Your task to perform on an android device: open chrome and create a bookmark for the current page Image 0: 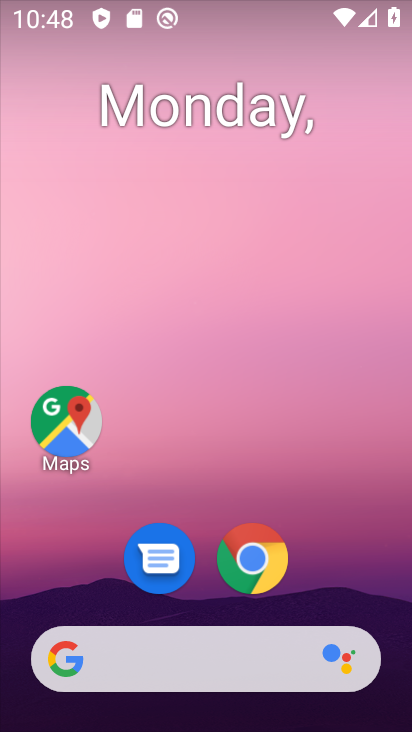
Step 0: click (262, 559)
Your task to perform on an android device: open chrome and create a bookmark for the current page Image 1: 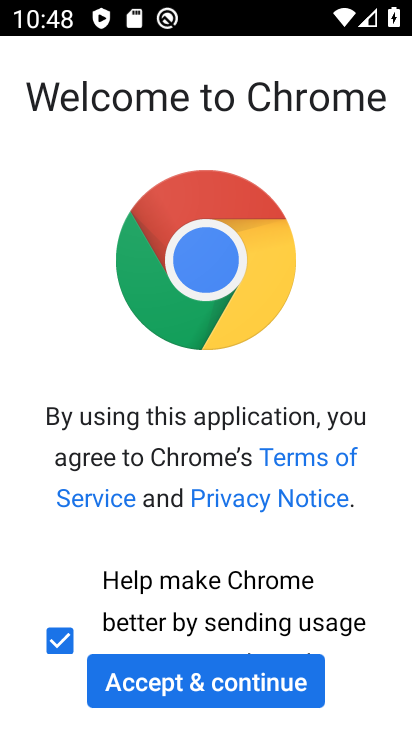
Step 1: click (218, 682)
Your task to perform on an android device: open chrome and create a bookmark for the current page Image 2: 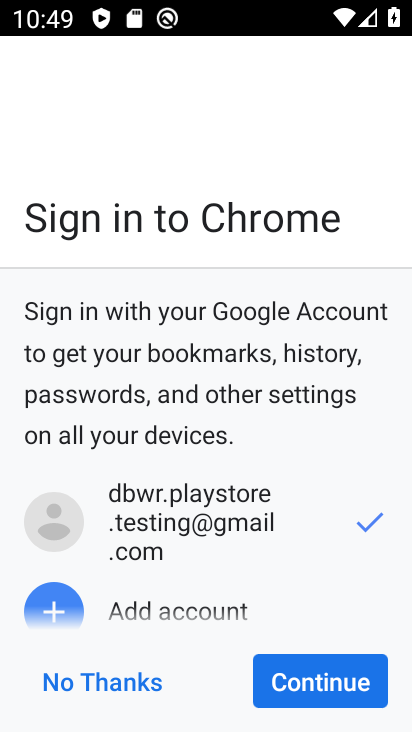
Step 2: click (273, 685)
Your task to perform on an android device: open chrome and create a bookmark for the current page Image 3: 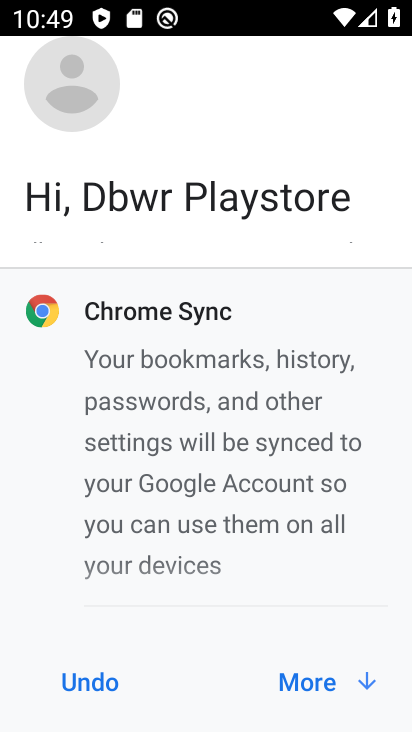
Step 3: click (307, 672)
Your task to perform on an android device: open chrome and create a bookmark for the current page Image 4: 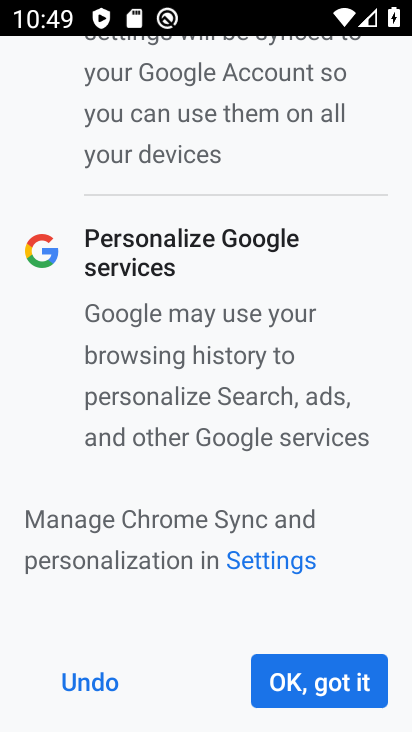
Step 4: click (307, 672)
Your task to perform on an android device: open chrome and create a bookmark for the current page Image 5: 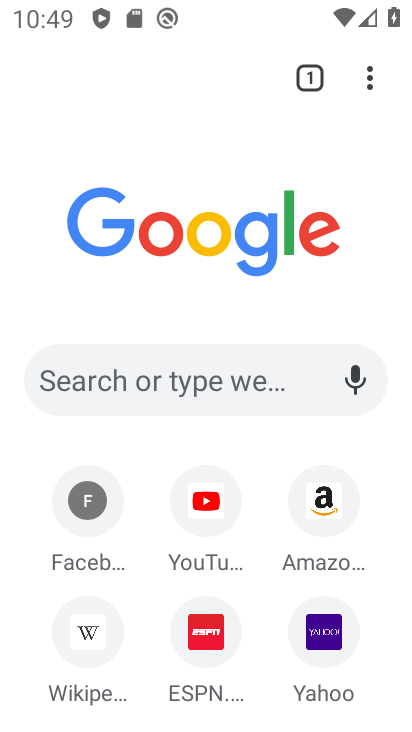
Step 5: click (361, 74)
Your task to perform on an android device: open chrome and create a bookmark for the current page Image 6: 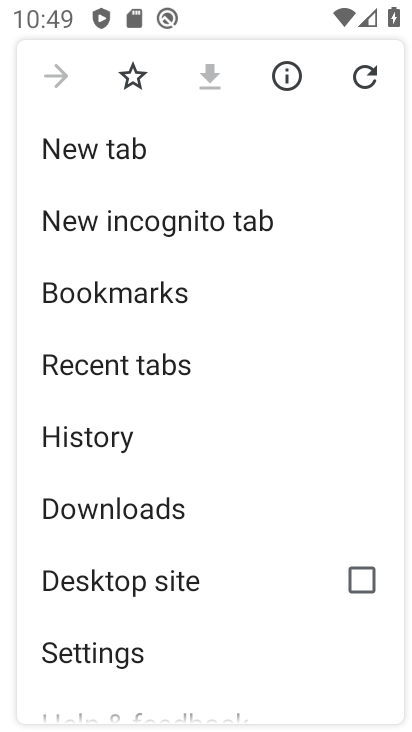
Step 6: click (140, 79)
Your task to perform on an android device: open chrome and create a bookmark for the current page Image 7: 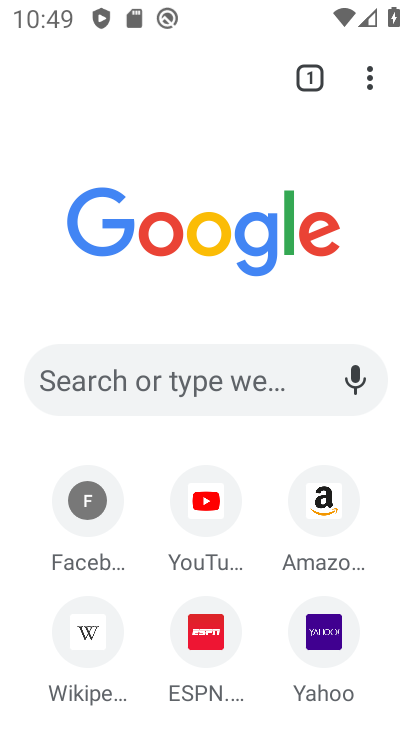
Step 7: task complete